Your task to perform on an android device: turn off priority inbox in the gmail app Image 0: 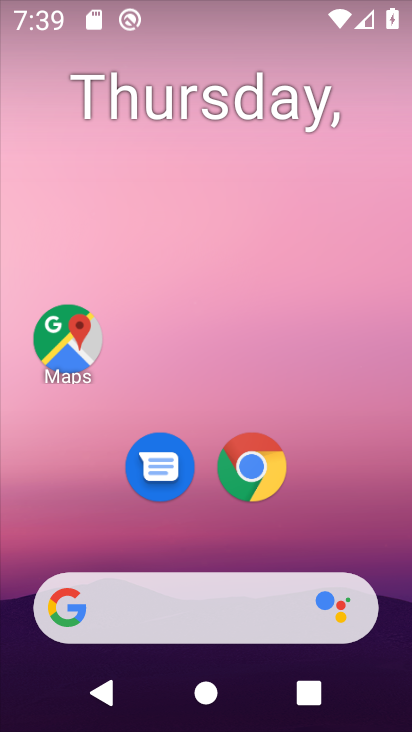
Step 0: click (241, 224)
Your task to perform on an android device: turn off priority inbox in the gmail app Image 1: 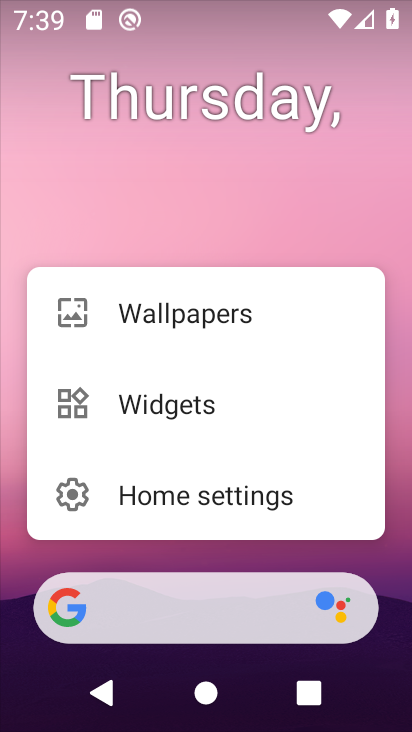
Step 1: click (276, 180)
Your task to perform on an android device: turn off priority inbox in the gmail app Image 2: 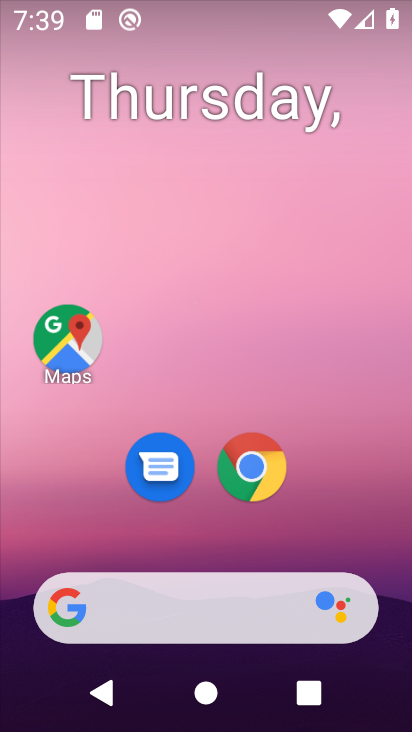
Step 2: drag from (185, 563) to (224, 0)
Your task to perform on an android device: turn off priority inbox in the gmail app Image 3: 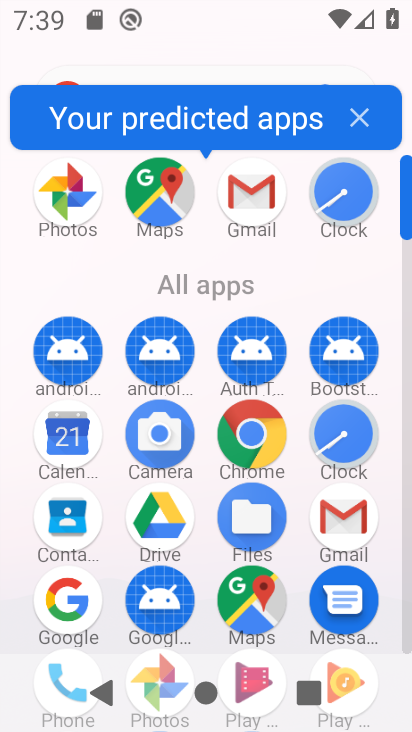
Step 3: click (250, 207)
Your task to perform on an android device: turn off priority inbox in the gmail app Image 4: 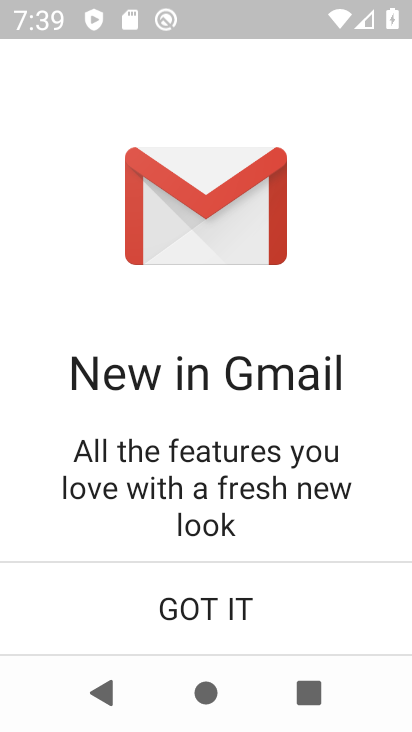
Step 4: click (209, 622)
Your task to perform on an android device: turn off priority inbox in the gmail app Image 5: 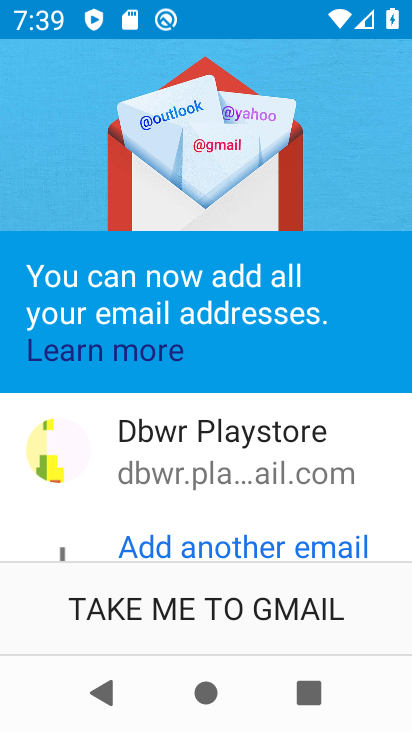
Step 5: click (253, 610)
Your task to perform on an android device: turn off priority inbox in the gmail app Image 6: 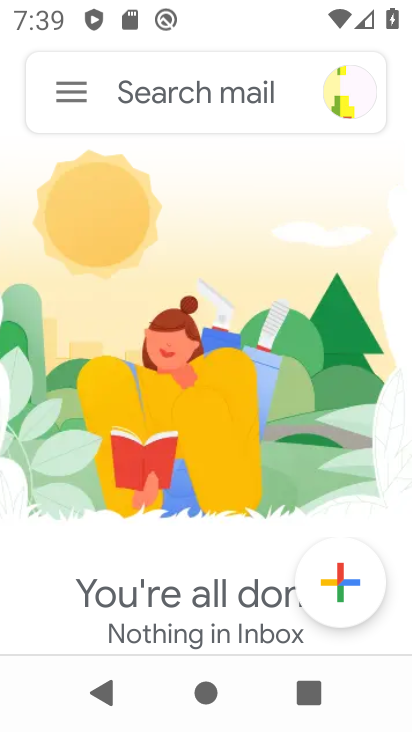
Step 6: click (70, 80)
Your task to perform on an android device: turn off priority inbox in the gmail app Image 7: 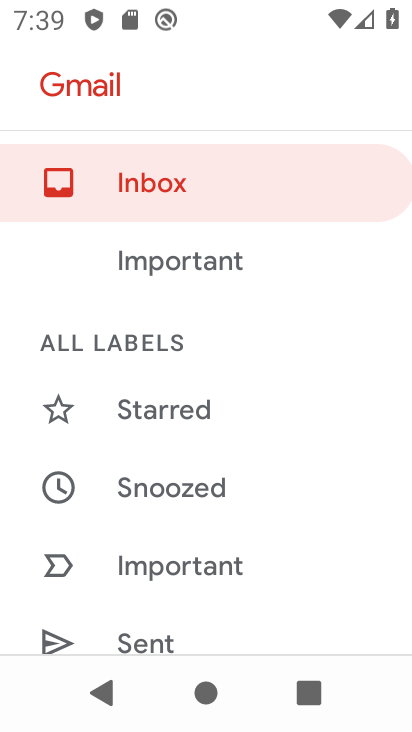
Step 7: drag from (231, 453) to (275, 183)
Your task to perform on an android device: turn off priority inbox in the gmail app Image 8: 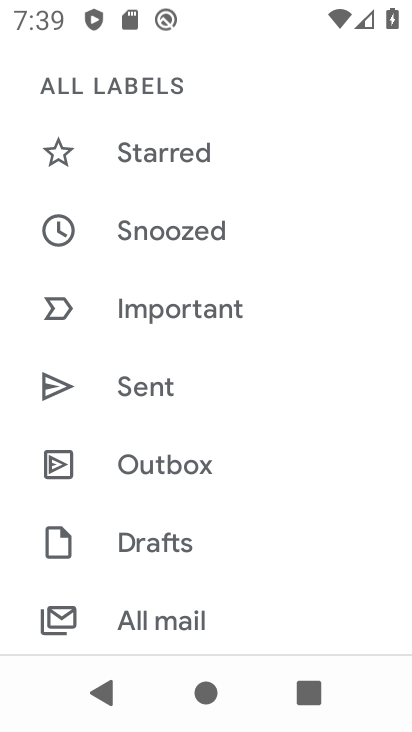
Step 8: drag from (241, 522) to (301, 169)
Your task to perform on an android device: turn off priority inbox in the gmail app Image 9: 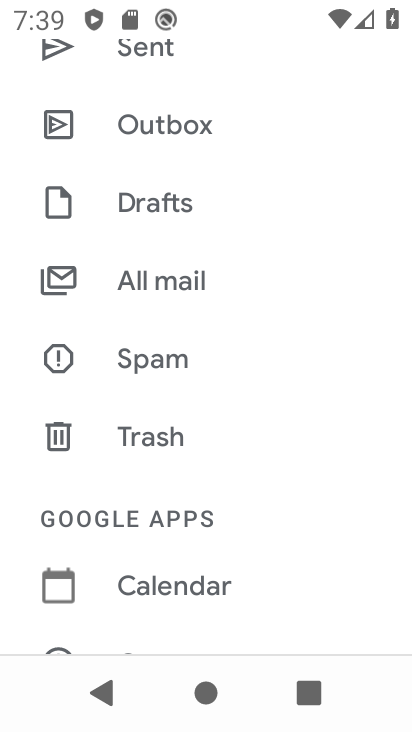
Step 9: drag from (199, 603) to (258, 256)
Your task to perform on an android device: turn off priority inbox in the gmail app Image 10: 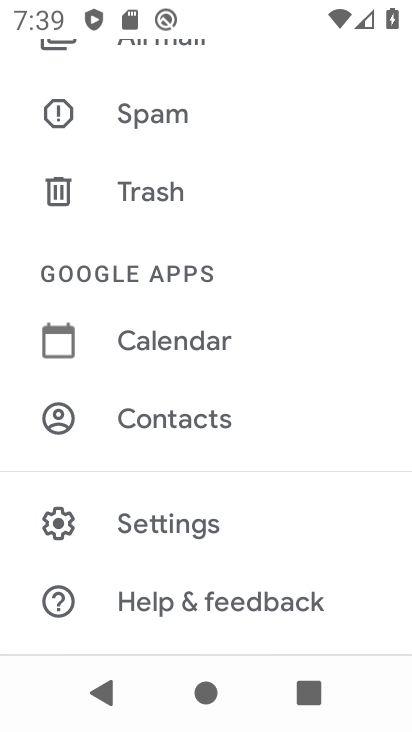
Step 10: click (180, 527)
Your task to perform on an android device: turn off priority inbox in the gmail app Image 11: 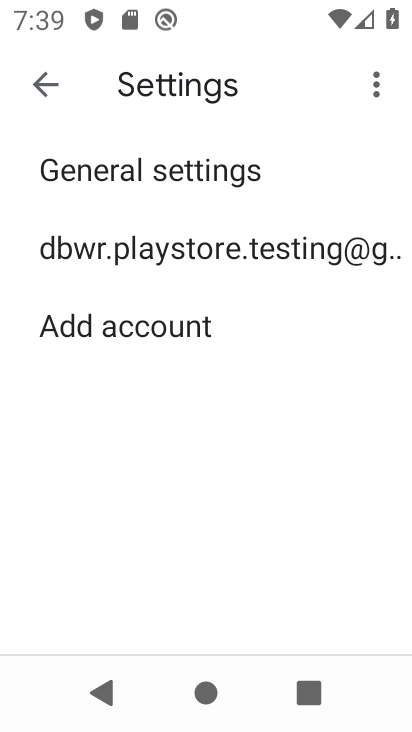
Step 11: click (231, 246)
Your task to perform on an android device: turn off priority inbox in the gmail app Image 12: 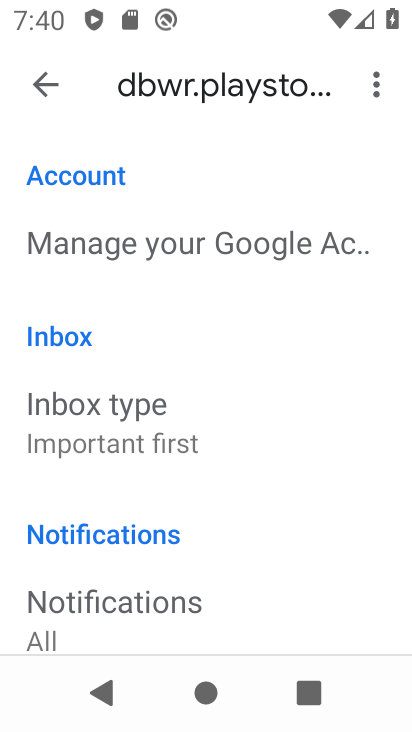
Step 12: click (121, 429)
Your task to perform on an android device: turn off priority inbox in the gmail app Image 13: 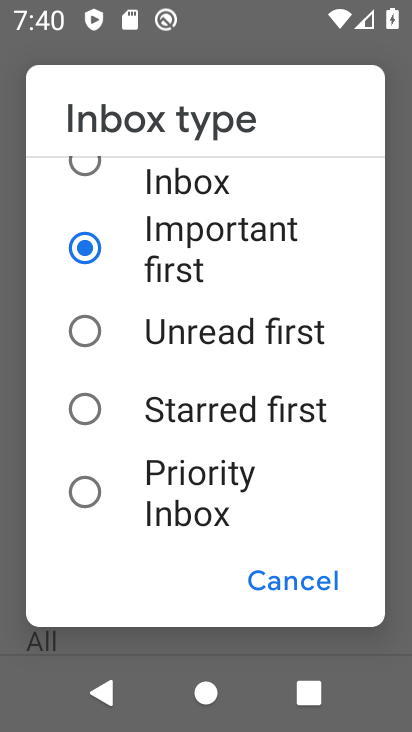
Step 13: click (84, 166)
Your task to perform on an android device: turn off priority inbox in the gmail app Image 14: 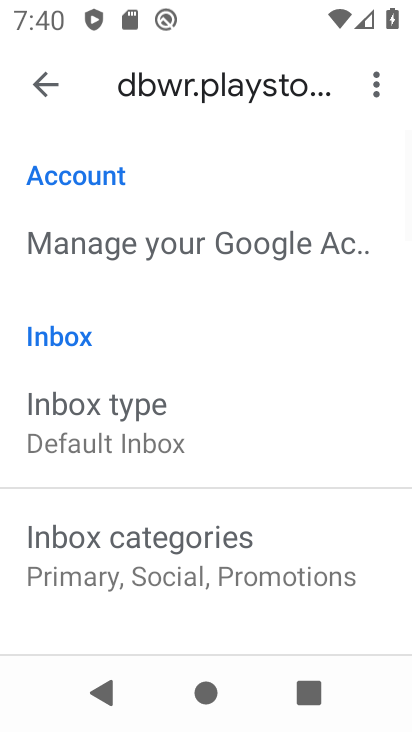
Step 14: task complete